Your task to perform on an android device: Go to notification settings Image 0: 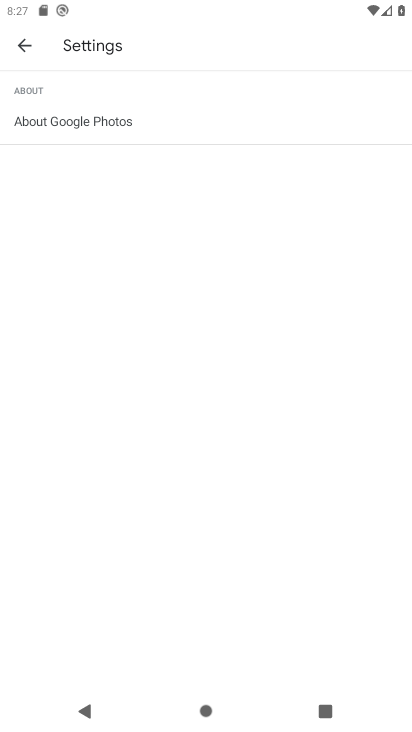
Step 0: press home button
Your task to perform on an android device: Go to notification settings Image 1: 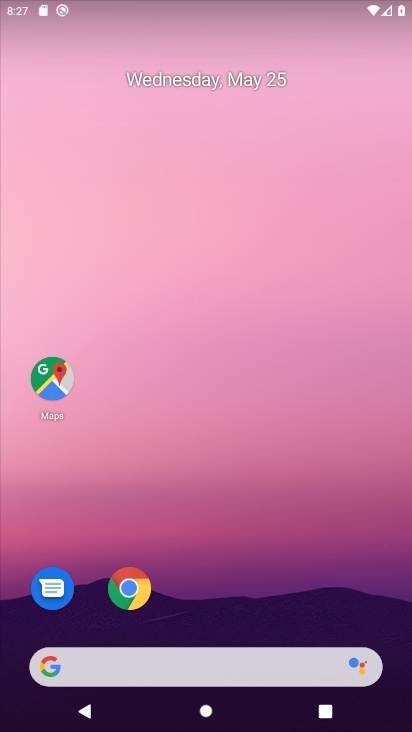
Step 1: drag from (373, 617) to (362, 199)
Your task to perform on an android device: Go to notification settings Image 2: 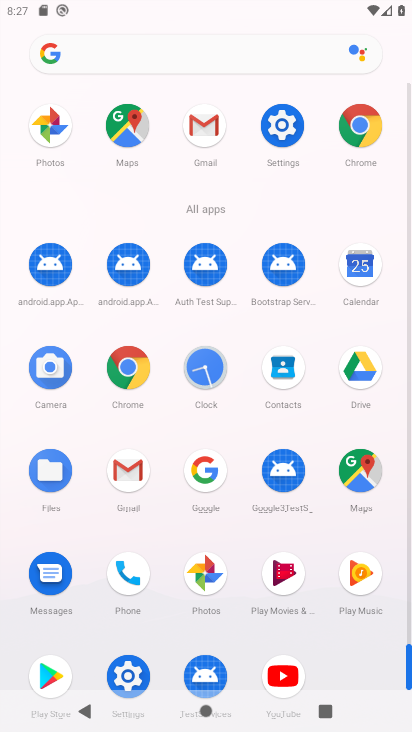
Step 2: drag from (363, 656) to (369, 477)
Your task to perform on an android device: Go to notification settings Image 3: 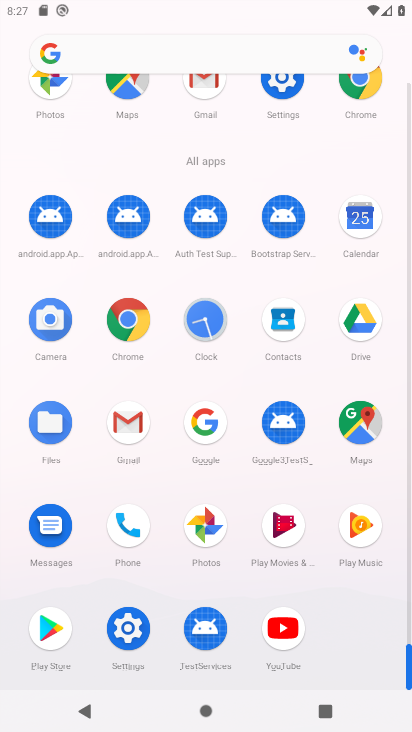
Step 3: click (136, 633)
Your task to perform on an android device: Go to notification settings Image 4: 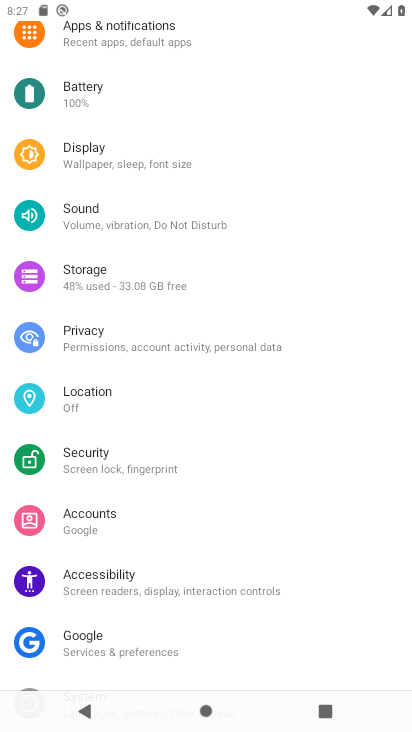
Step 4: drag from (303, 409) to (317, 478)
Your task to perform on an android device: Go to notification settings Image 5: 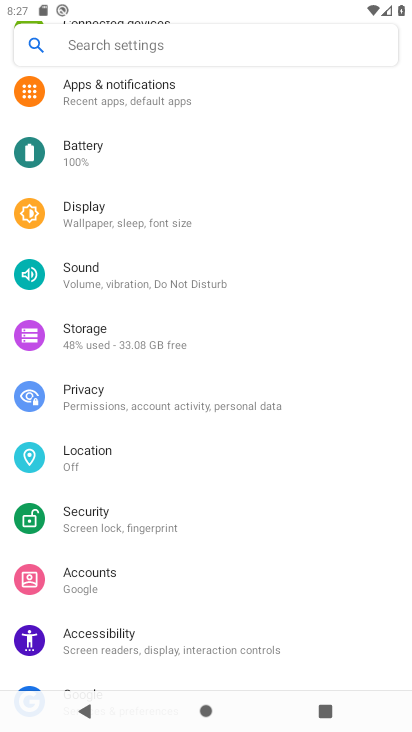
Step 5: drag from (317, 392) to (319, 481)
Your task to perform on an android device: Go to notification settings Image 6: 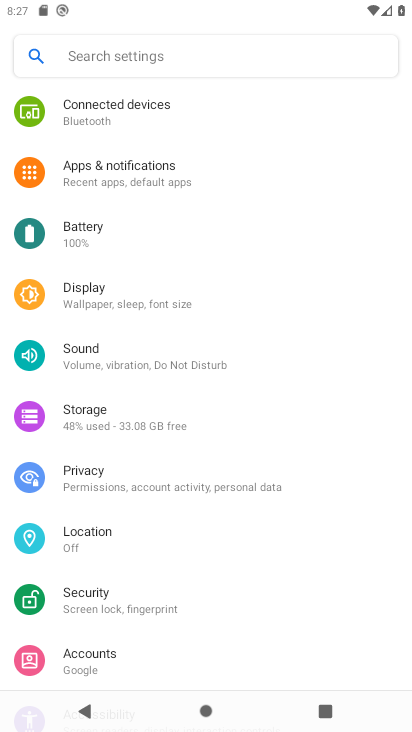
Step 6: drag from (311, 376) to (323, 463)
Your task to perform on an android device: Go to notification settings Image 7: 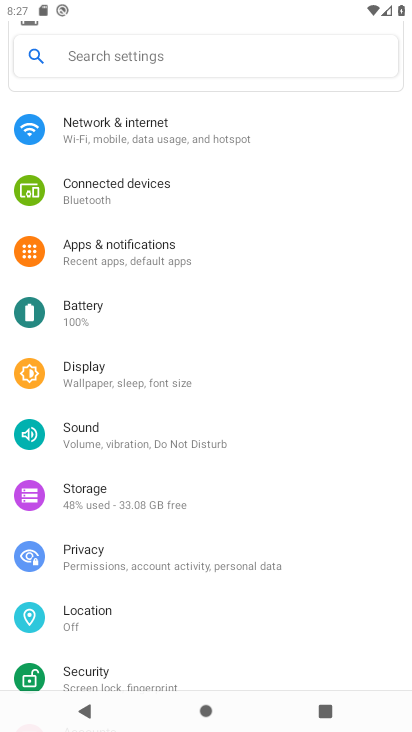
Step 7: drag from (313, 389) to (319, 500)
Your task to perform on an android device: Go to notification settings Image 8: 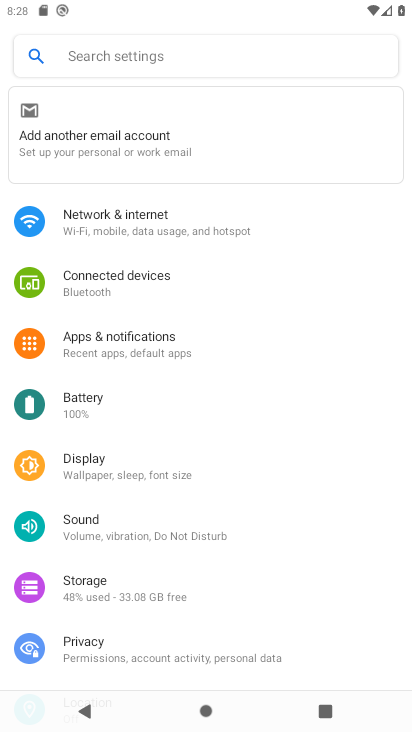
Step 8: drag from (325, 413) to (319, 510)
Your task to perform on an android device: Go to notification settings Image 9: 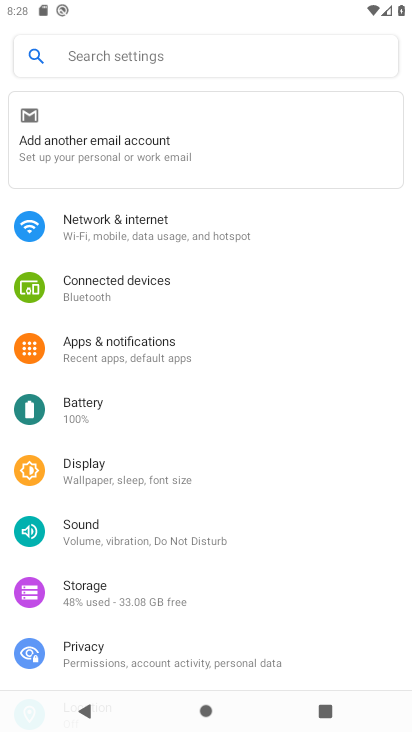
Step 9: click (231, 346)
Your task to perform on an android device: Go to notification settings Image 10: 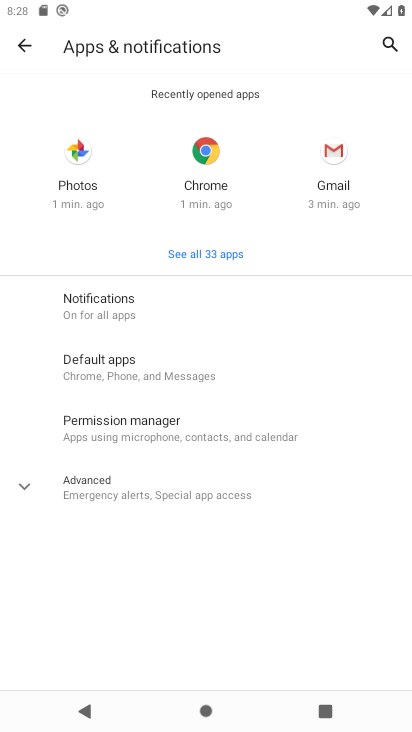
Step 10: click (154, 309)
Your task to perform on an android device: Go to notification settings Image 11: 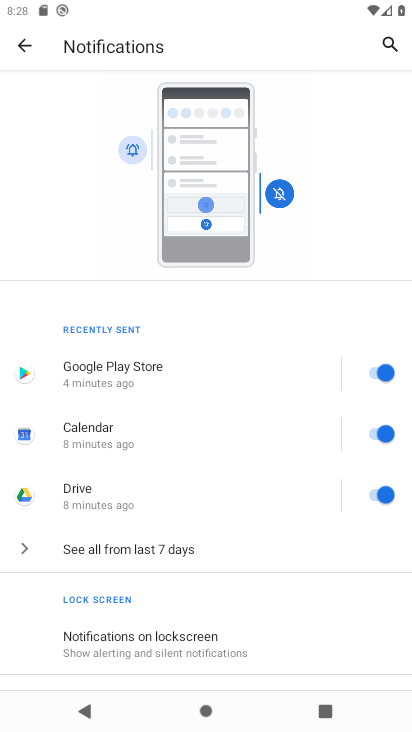
Step 11: task complete